Your task to perform on an android device: Open the phone app and click the voicemail tab. Image 0: 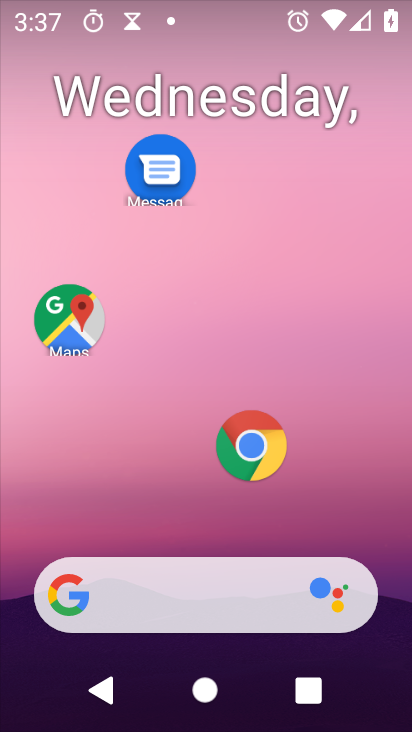
Step 0: press home button
Your task to perform on an android device: Open the phone app and click the voicemail tab. Image 1: 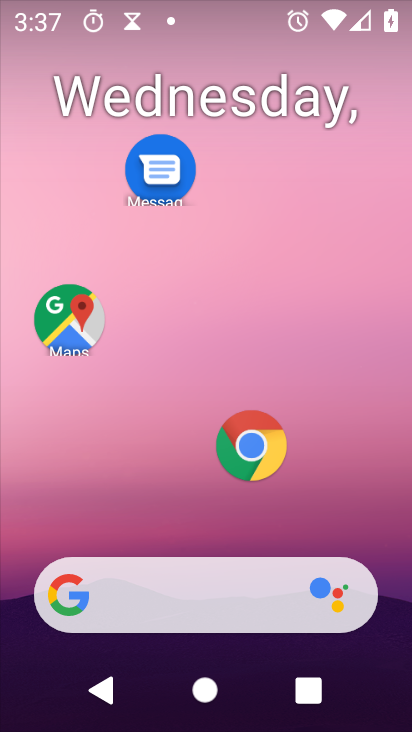
Step 1: drag from (46, 443) to (178, 187)
Your task to perform on an android device: Open the phone app and click the voicemail tab. Image 2: 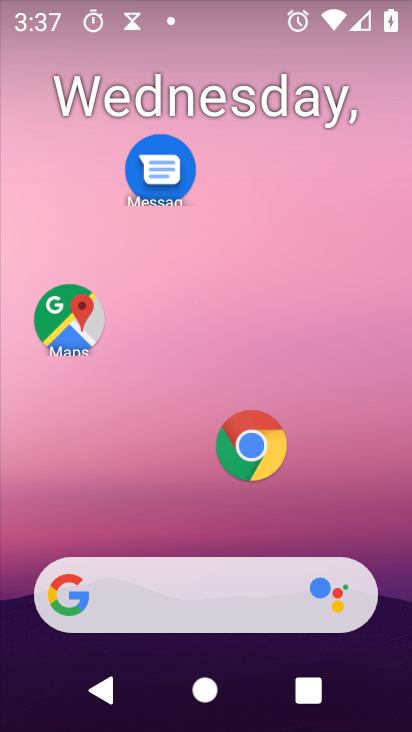
Step 2: drag from (45, 659) to (373, 159)
Your task to perform on an android device: Open the phone app and click the voicemail tab. Image 3: 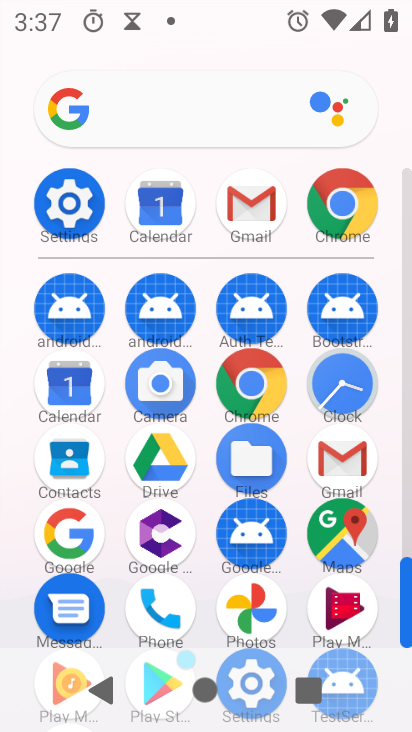
Step 3: click (146, 606)
Your task to perform on an android device: Open the phone app and click the voicemail tab. Image 4: 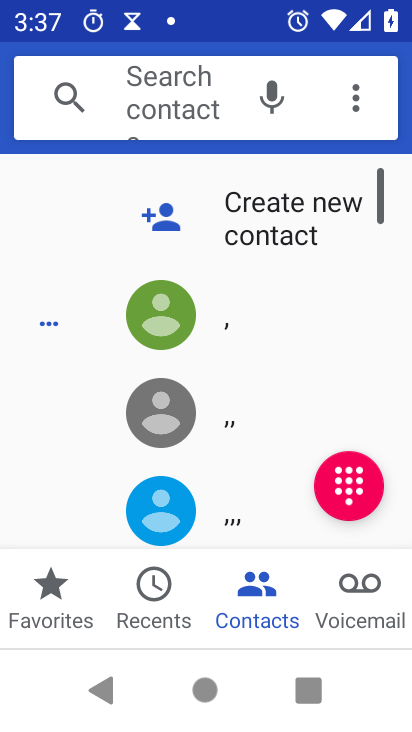
Step 4: click (355, 600)
Your task to perform on an android device: Open the phone app and click the voicemail tab. Image 5: 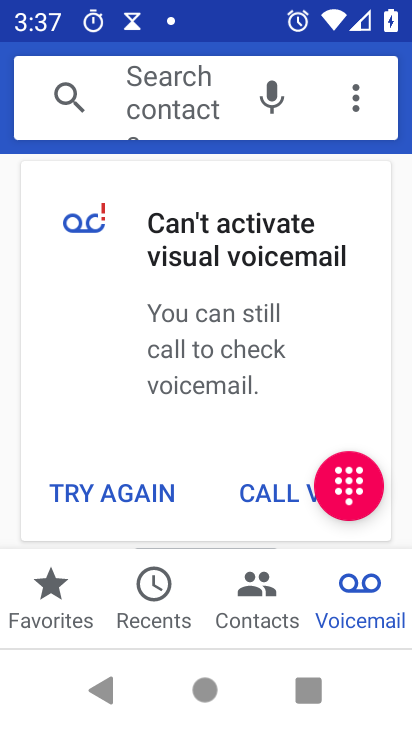
Step 5: task complete